Your task to perform on an android device: search for starred emails in the gmail app Image 0: 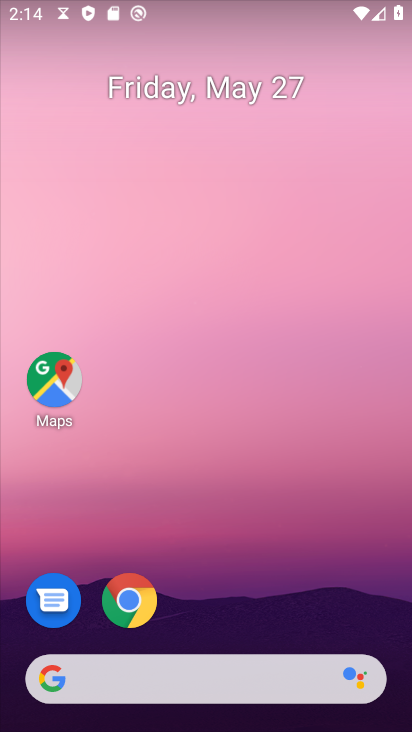
Step 0: drag from (319, 505) to (271, 38)
Your task to perform on an android device: search for starred emails in the gmail app Image 1: 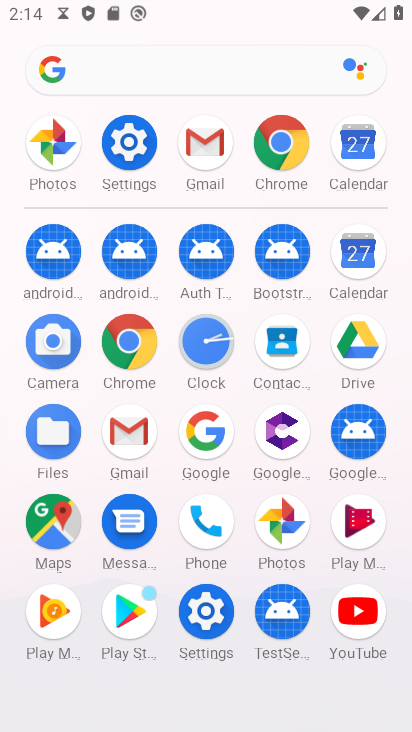
Step 1: drag from (9, 474) to (31, 260)
Your task to perform on an android device: search for starred emails in the gmail app Image 2: 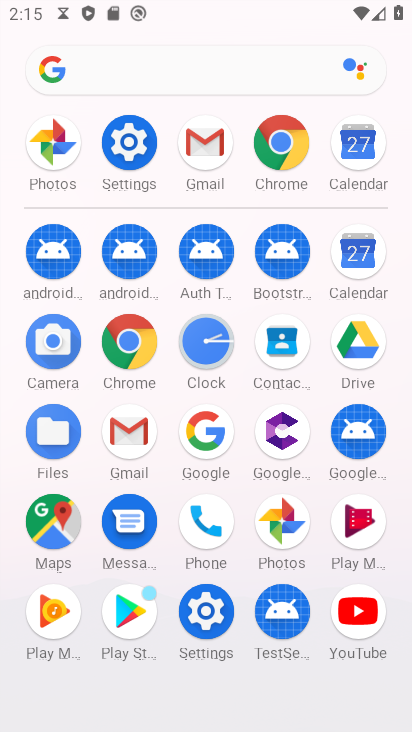
Step 2: click (127, 421)
Your task to perform on an android device: search for starred emails in the gmail app Image 3: 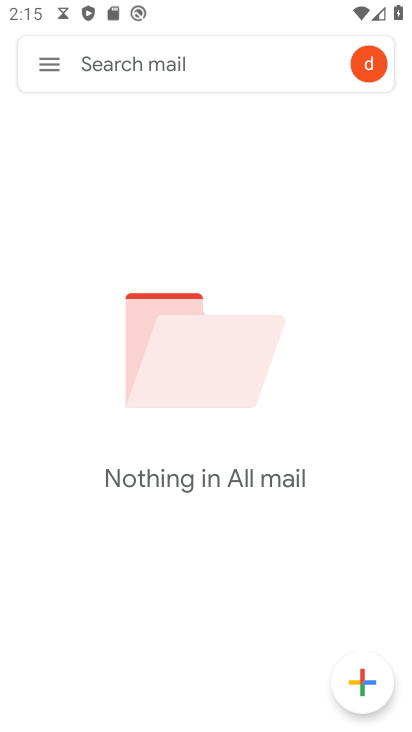
Step 3: click (46, 68)
Your task to perform on an android device: search for starred emails in the gmail app Image 4: 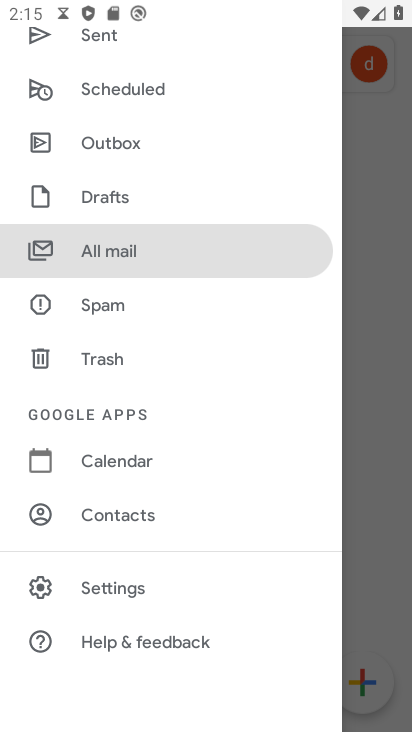
Step 4: drag from (182, 162) to (221, 475)
Your task to perform on an android device: search for starred emails in the gmail app Image 5: 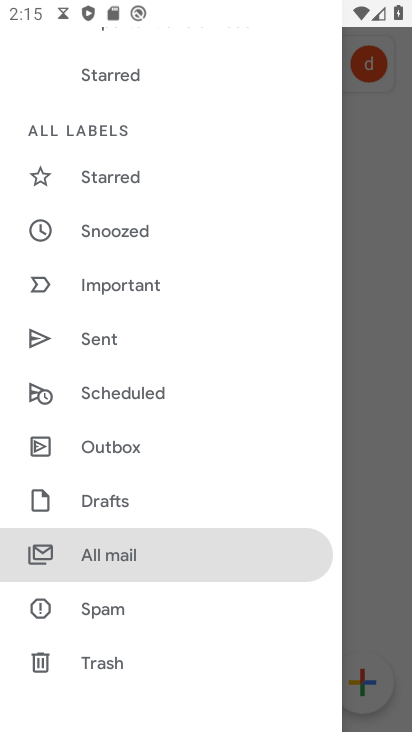
Step 5: click (132, 177)
Your task to perform on an android device: search for starred emails in the gmail app Image 6: 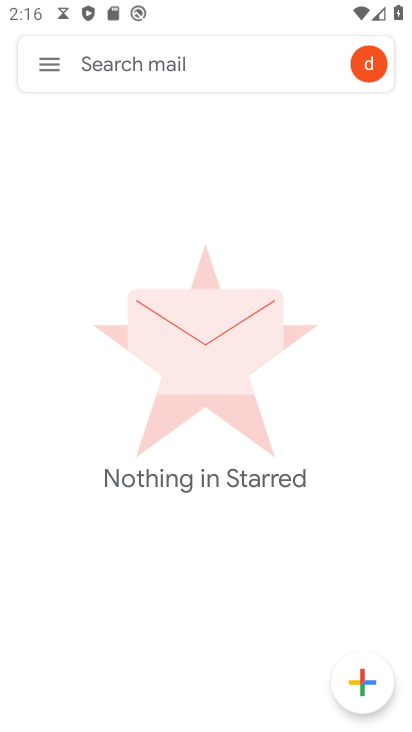
Step 6: task complete